Your task to perform on an android device: Do I have any events tomorrow? Image 0: 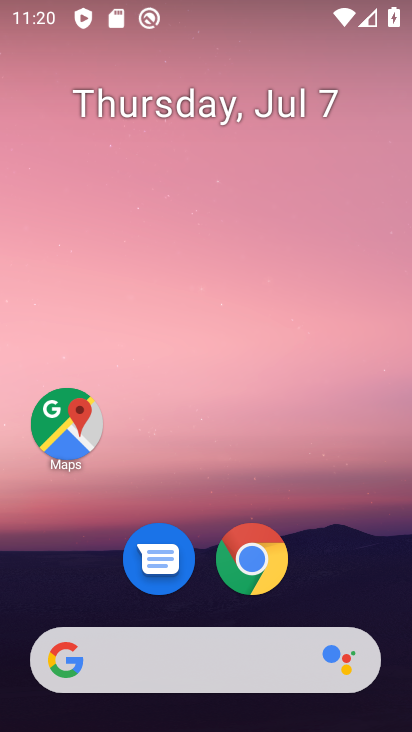
Step 0: drag from (375, 583) to (368, 143)
Your task to perform on an android device: Do I have any events tomorrow? Image 1: 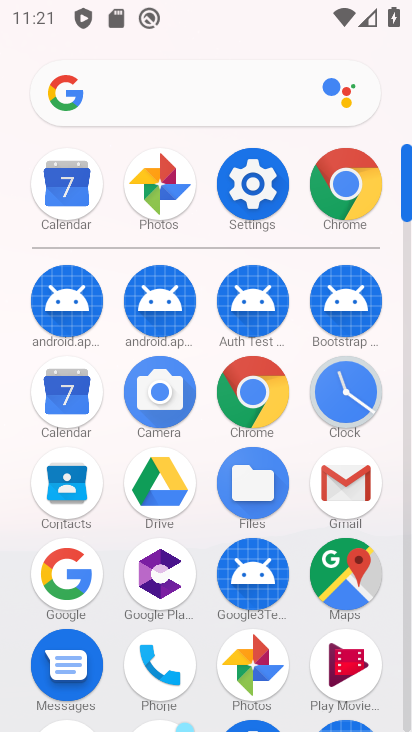
Step 1: click (76, 402)
Your task to perform on an android device: Do I have any events tomorrow? Image 2: 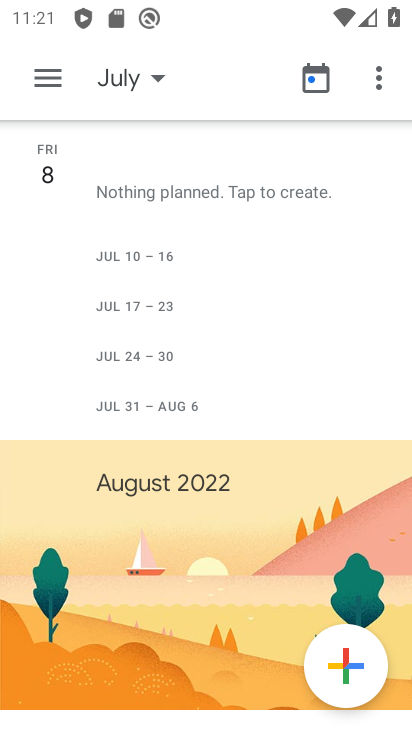
Step 2: click (147, 73)
Your task to perform on an android device: Do I have any events tomorrow? Image 3: 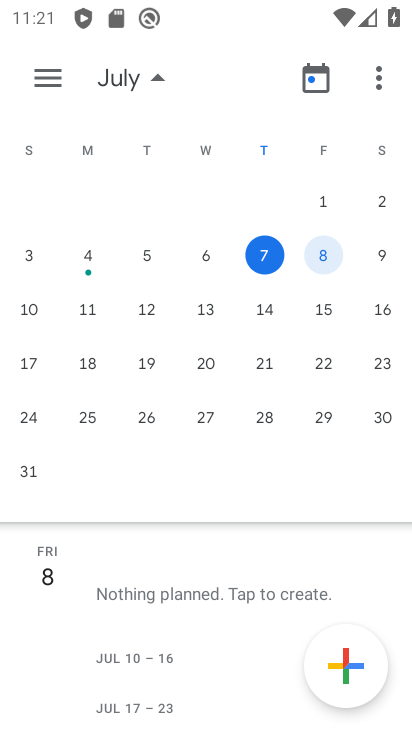
Step 3: click (384, 245)
Your task to perform on an android device: Do I have any events tomorrow? Image 4: 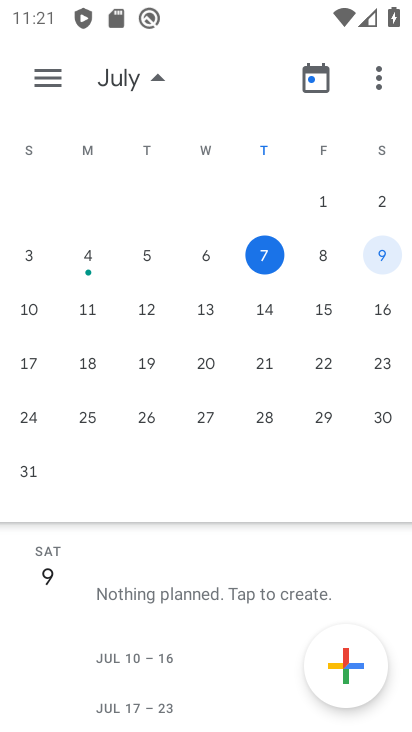
Step 4: task complete